Your task to perform on an android device: Go to Google maps Image 0: 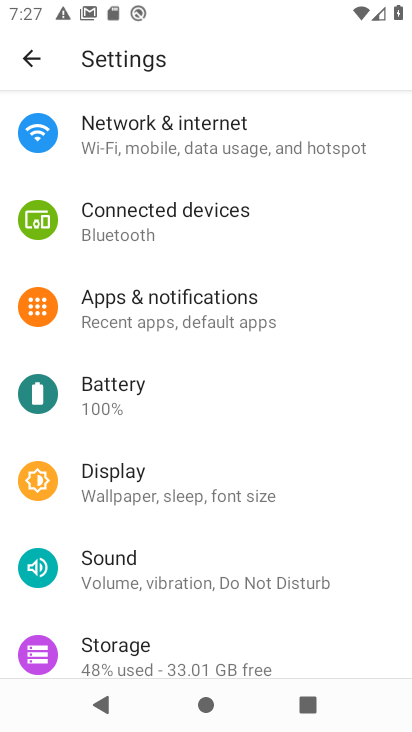
Step 0: press home button
Your task to perform on an android device: Go to Google maps Image 1: 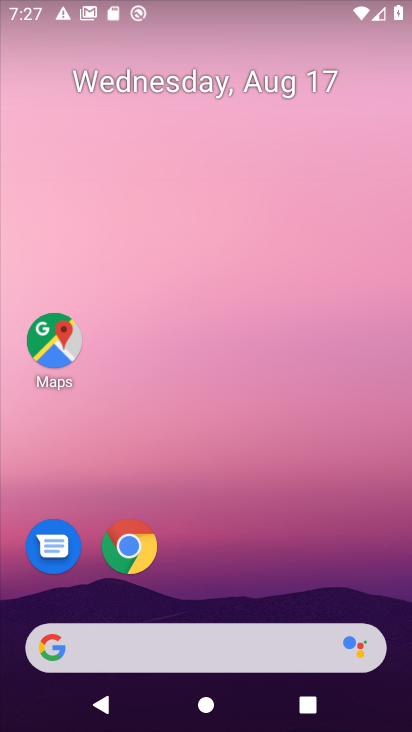
Step 1: click (80, 346)
Your task to perform on an android device: Go to Google maps Image 2: 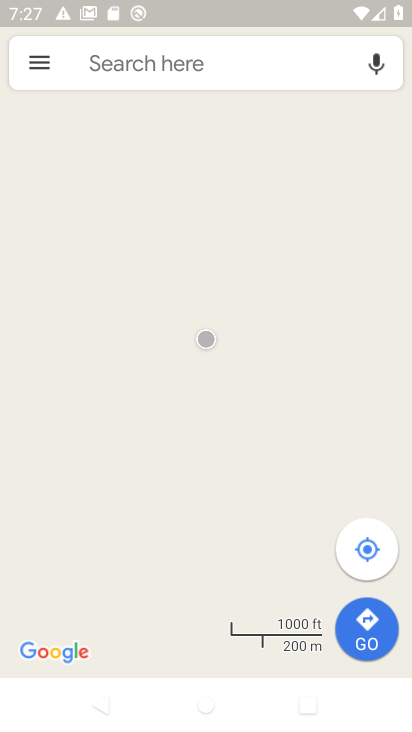
Step 2: task complete